Your task to perform on an android device: toggle notification dots Image 0: 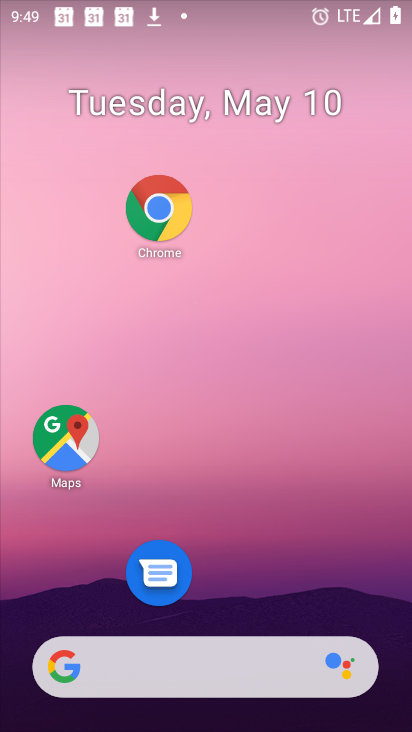
Step 0: drag from (256, 695) to (389, 126)
Your task to perform on an android device: toggle notification dots Image 1: 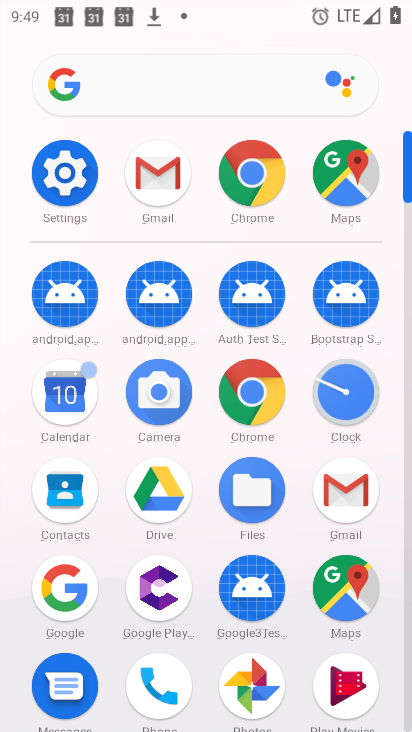
Step 1: click (63, 167)
Your task to perform on an android device: toggle notification dots Image 2: 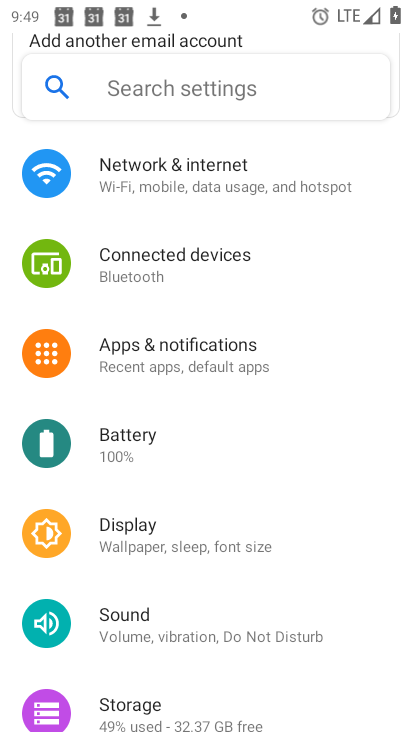
Step 2: click (146, 81)
Your task to perform on an android device: toggle notification dots Image 3: 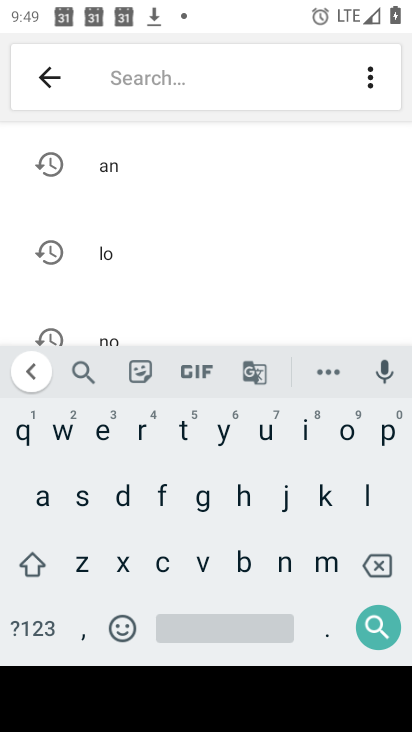
Step 3: click (131, 333)
Your task to perform on an android device: toggle notification dots Image 4: 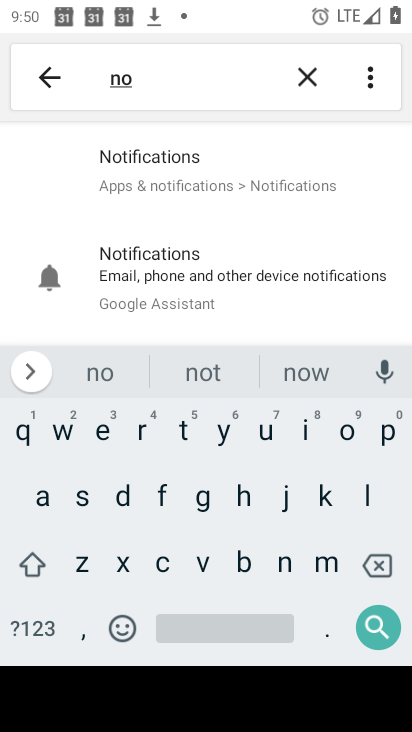
Step 4: click (304, 69)
Your task to perform on an android device: toggle notification dots Image 5: 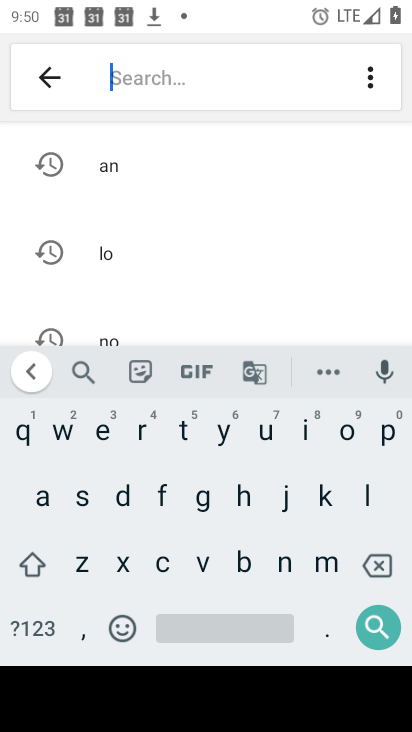
Step 5: click (122, 482)
Your task to perform on an android device: toggle notification dots Image 6: 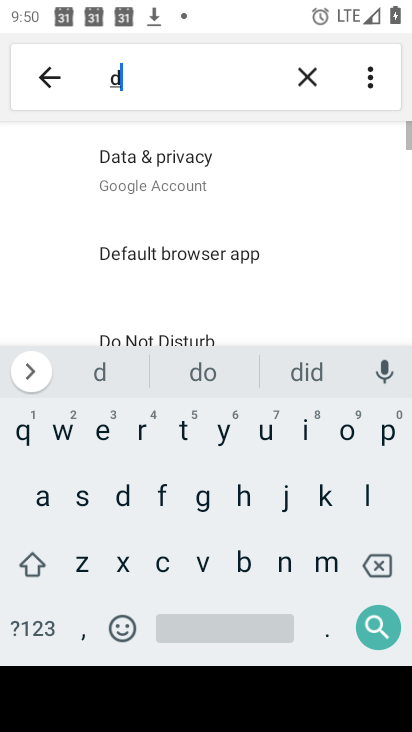
Step 6: click (343, 431)
Your task to perform on an android device: toggle notification dots Image 7: 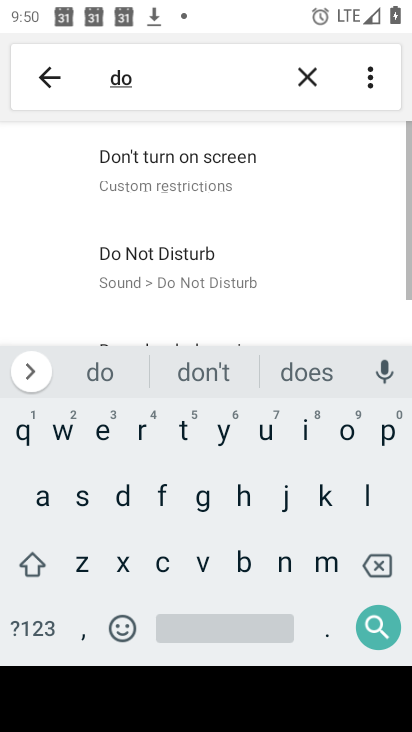
Step 7: click (179, 421)
Your task to perform on an android device: toggle notification dots Image 8: 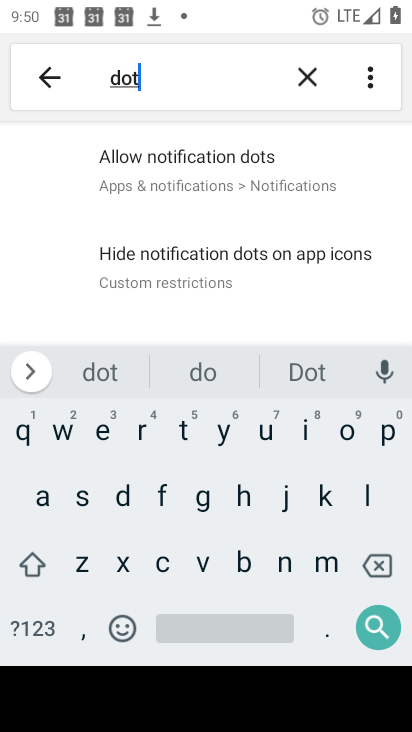
Step 8: click (247, 174)
Your task to perform on an android device: toggle notification dots Image 9: 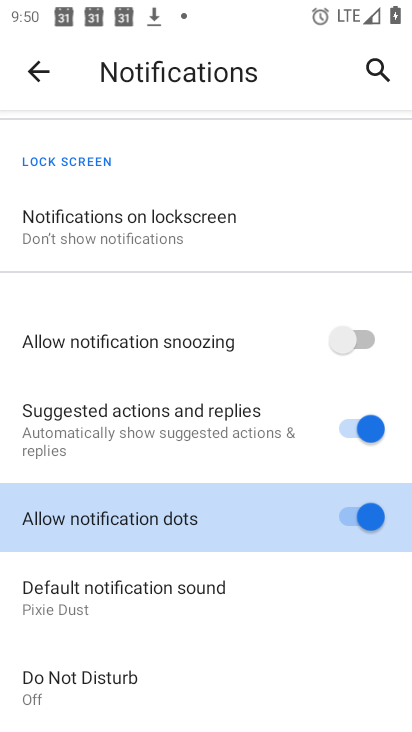
Step 9: click (181, 508)
Your task to perform on an android device: toggle notification dots Image 10: 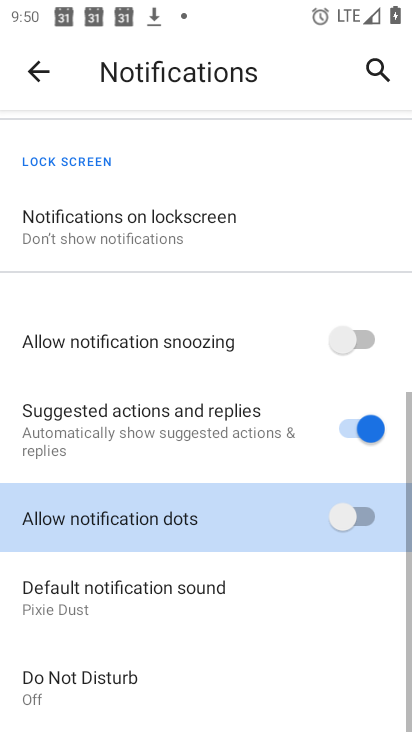
Step 10: click (182, 502)
Your task to perform on an android device: toggle notification dots Image 11: 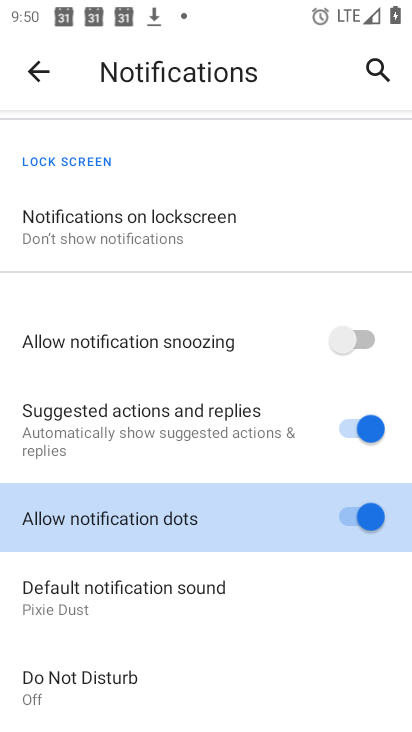
Step 11: task complete